Your task to perform on an android device: choose inbox layout in the gmail app Image 0: 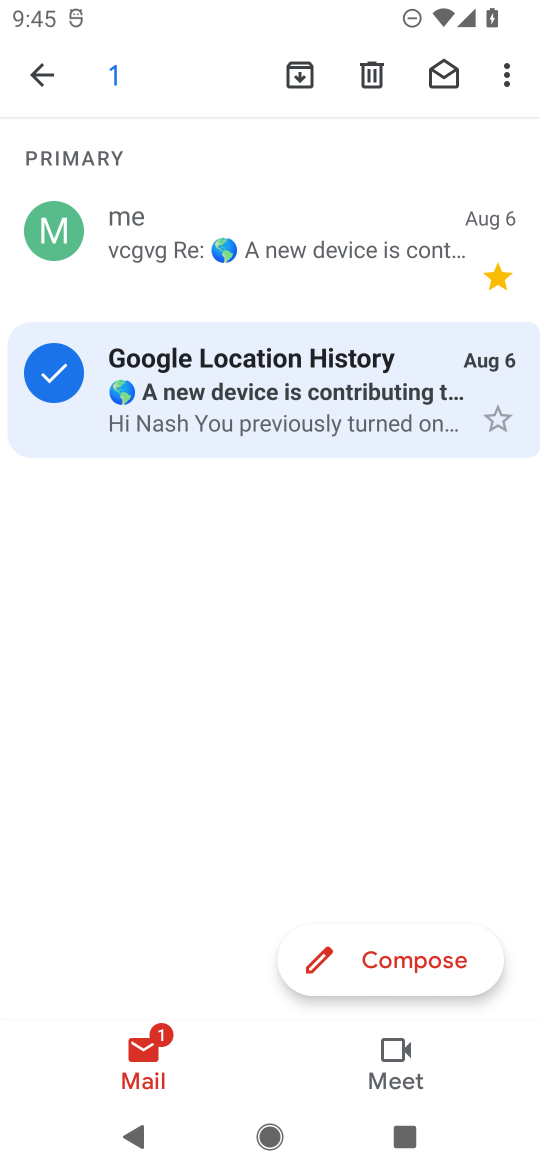
Step 0: click (43, 81)
Your task to perform on an android device: choose inbox layout in the gmail app Image 1: 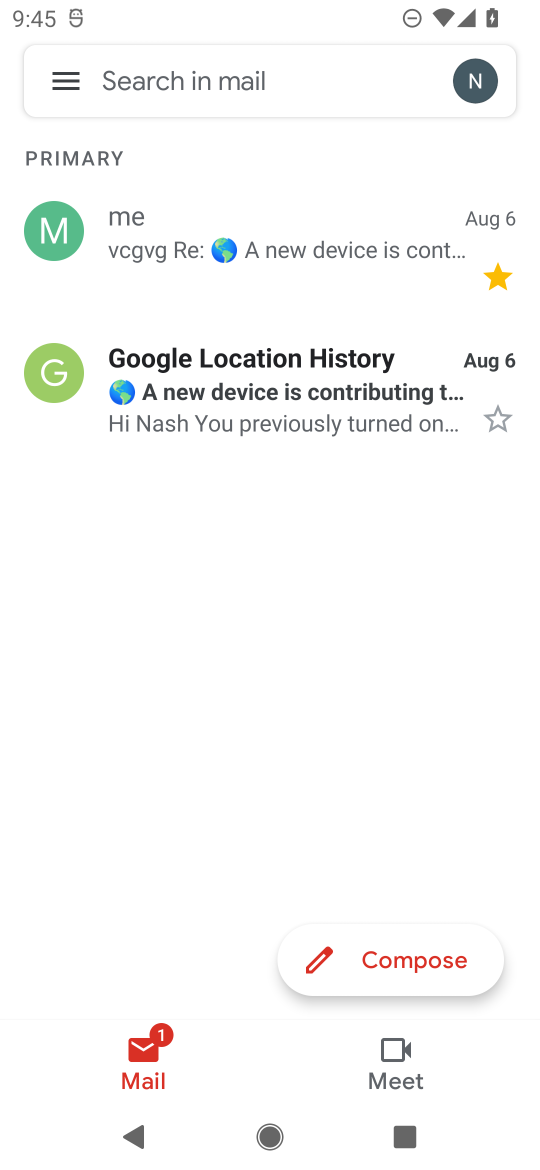
Step 1: click (43, 81)
Your task to perform on an android device: choose inbox layout in the gmail app Image 2: 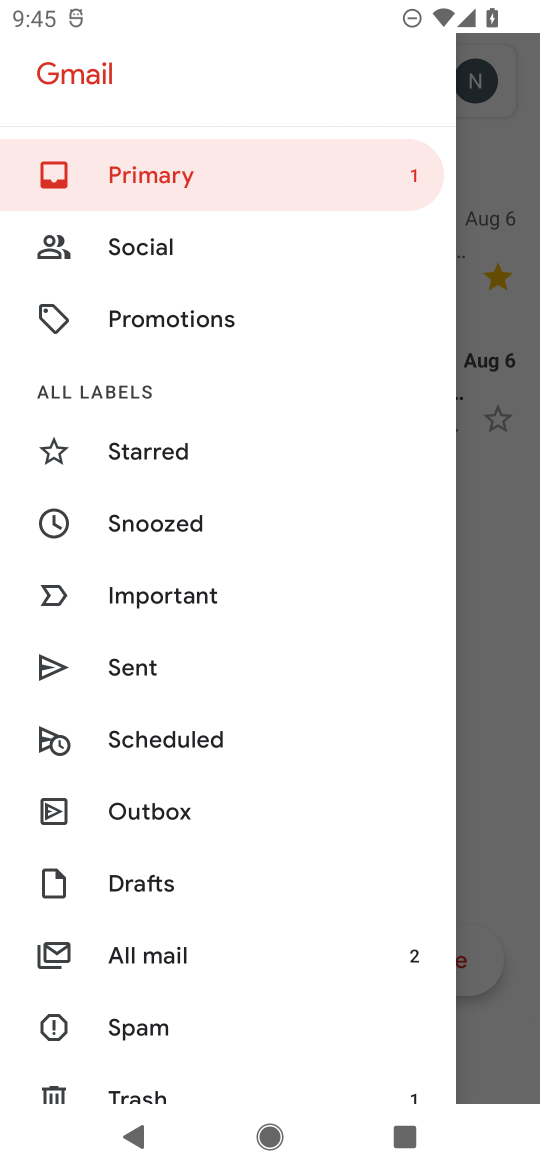
Step 2: drag from (176, 1083) to (146, 415)
Your task to perform on an android device: choose inbox layout in the gmail app Image 3: 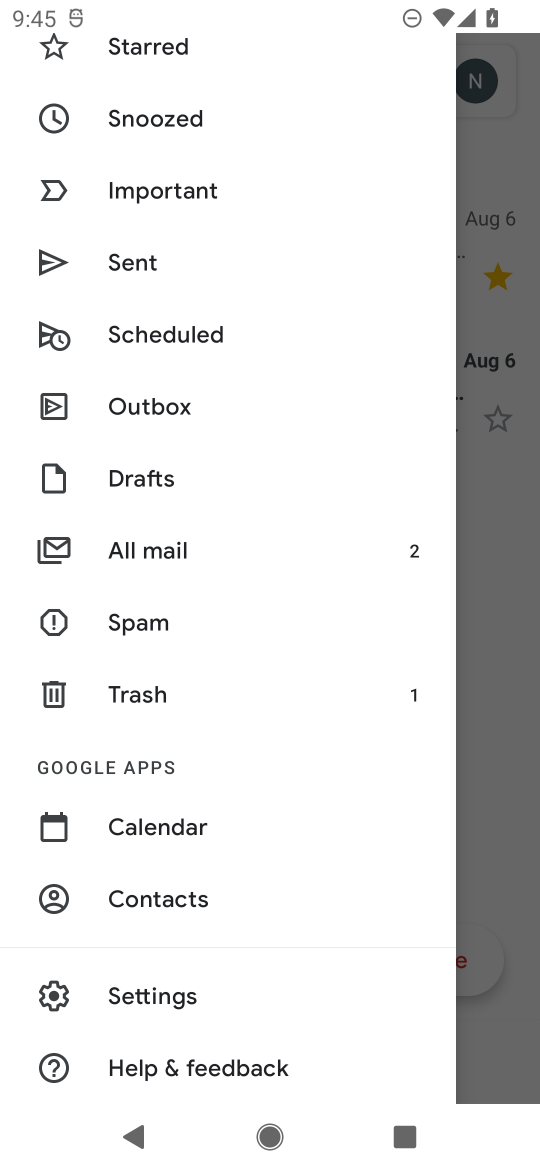
Step 3: click (198, 985)
Your task to perform on an android device: choose inbox layout in the gmail app Image 4: 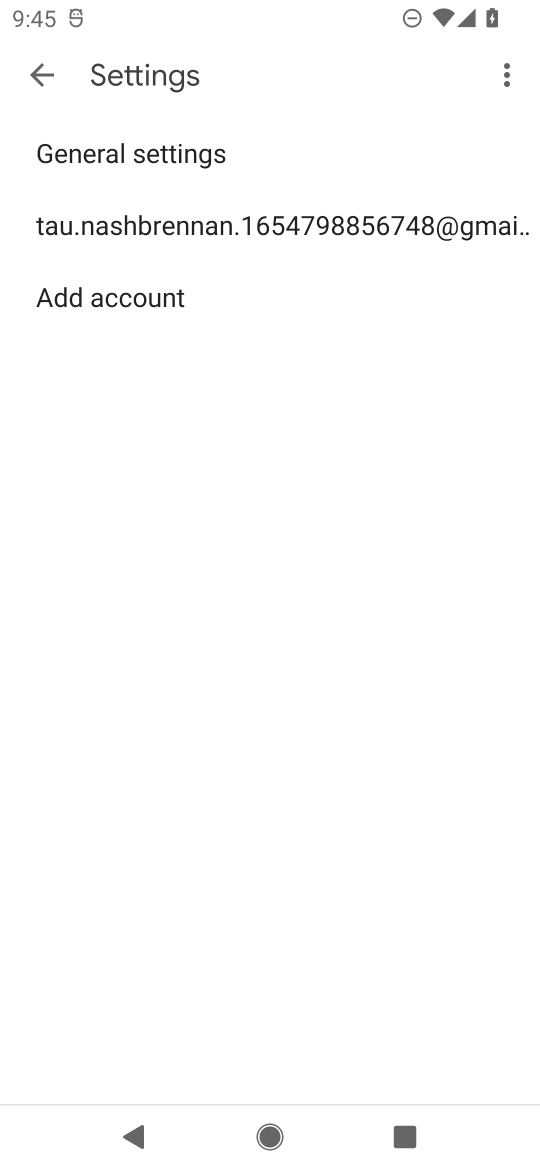
Step 4: click (431, 239)
Your task to perform on an android device: choose inbox layout in the gmail app Image 5: 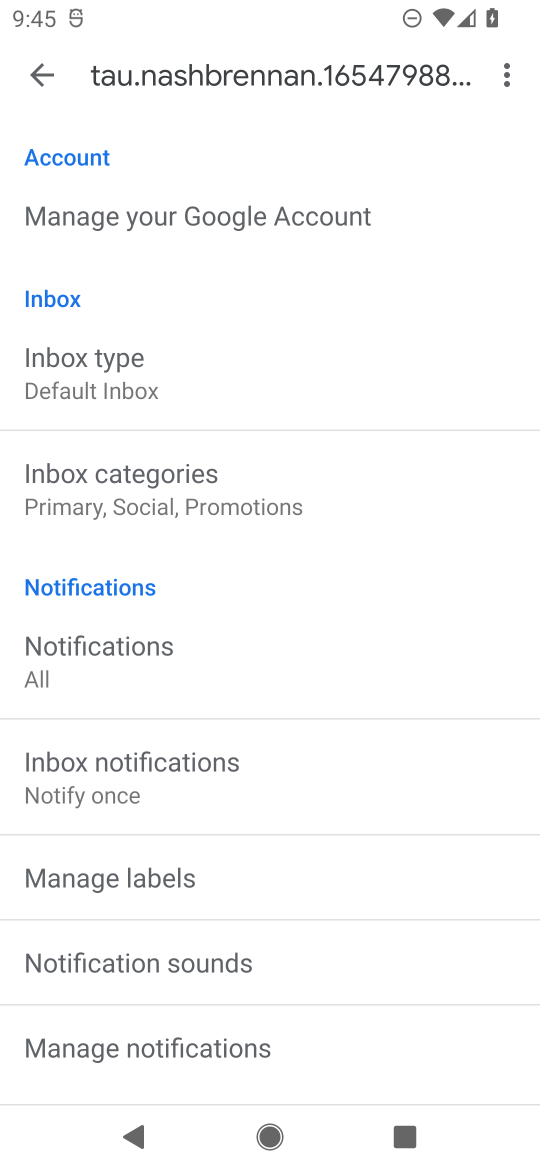
Step 5: click (148, 412)
Your task to perform on an android device: choose inbox layout in the gmail app Image 6: 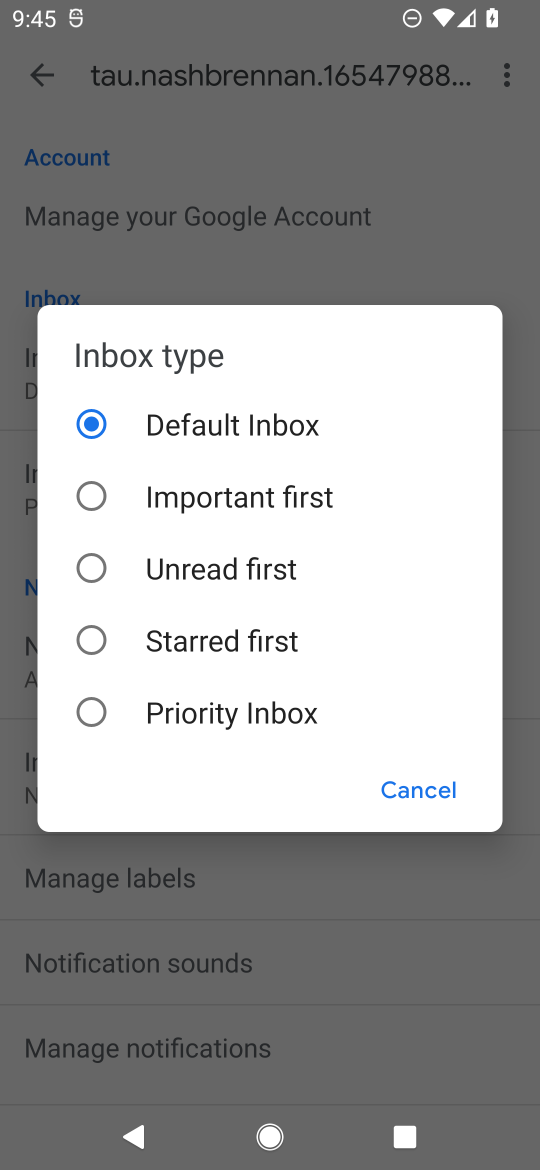
Step 6: click (172, 563)
Your task to perform on an android device: choose inbox layout in the gmail app Image 7: 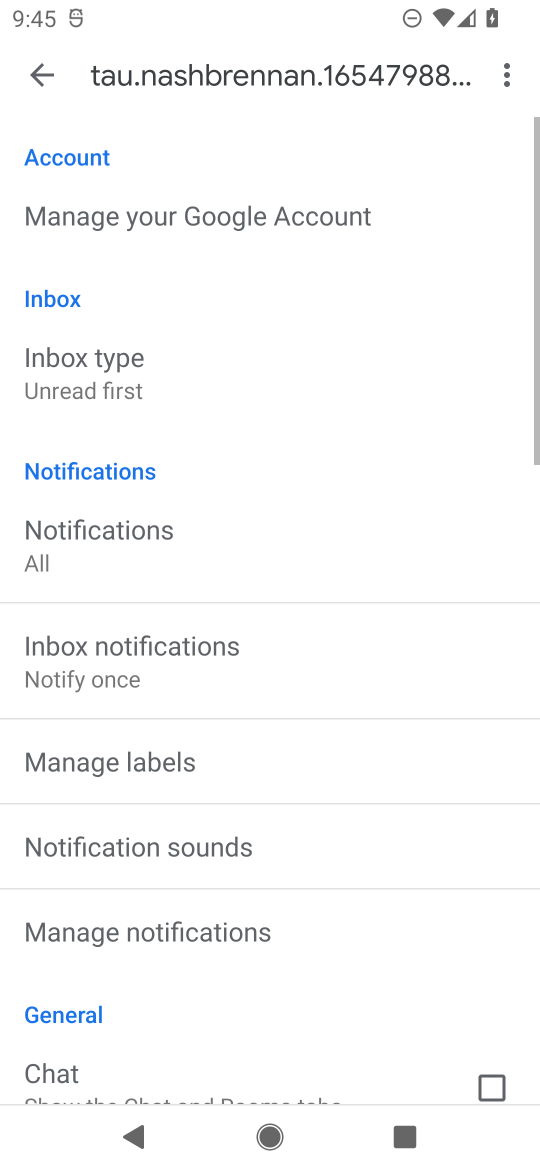
Step 7: task complete